Your task to perform on an android device: turn on the 24-hour format for clock Image 0: 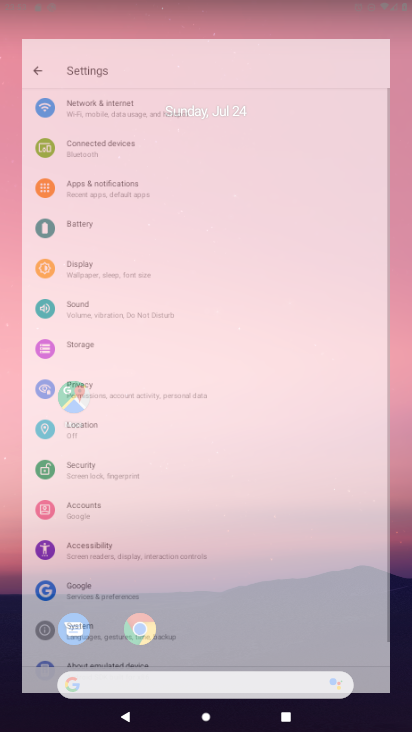
Step 0: drag from (200, 612) to (209, 165)
Your task to perform on an android device: turn on the 24-hour format for clock Image 1: 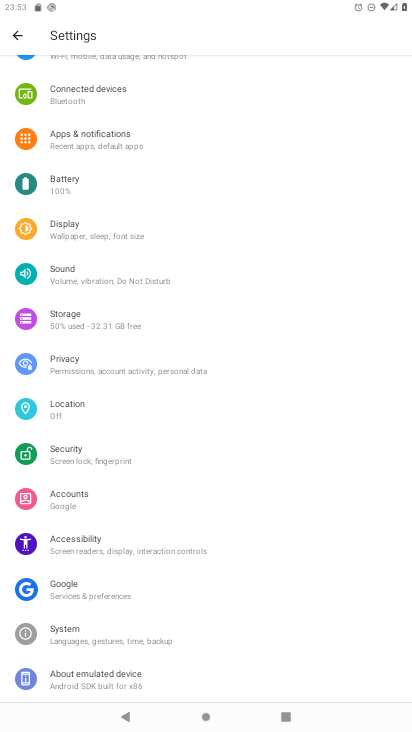
Step 1: press home button
Your task to perform on an android device: turn on the 24-hour format for clock Image 2: 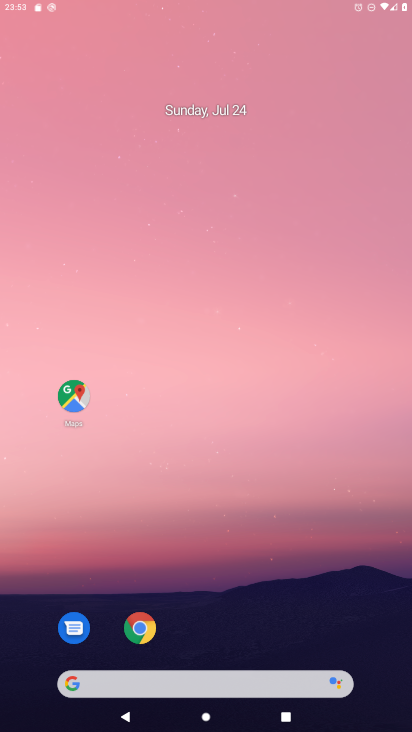
Step 2: drag from (222, 675) to (191, 99)
Your task to perform on an android device: turn on the 24-hour format for clock Image 3: 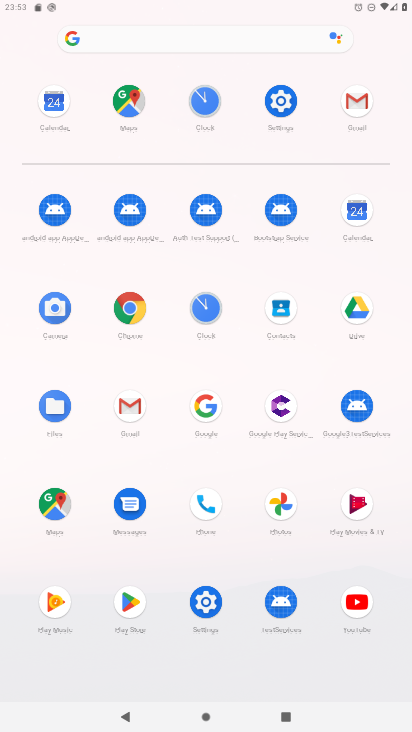
Step 3: drag from (236, 542) to (234, 172)
Your task to perform on an android device: turn on the 24-hour format for clock Image 4: 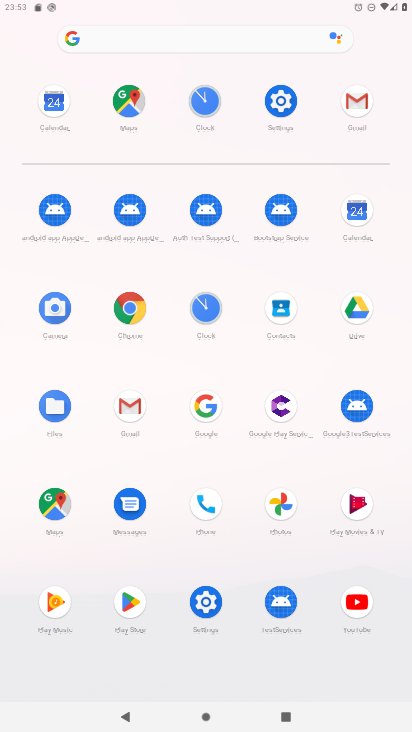
Step 4: drag from (234, 553) to (246, 231)
Your task to perform on an android device: turn on the 24-hour format for clock Image 5: 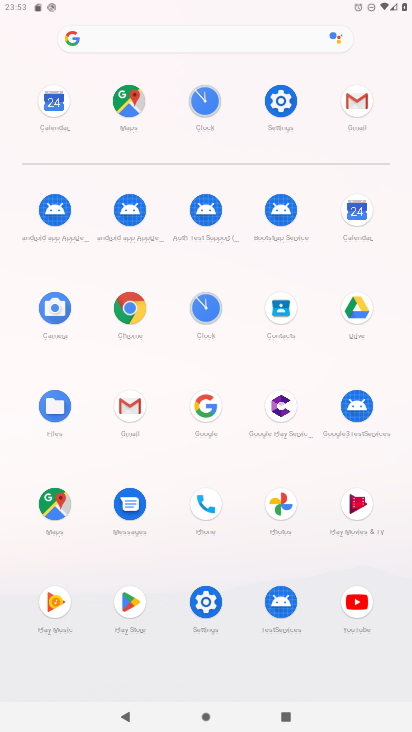
Step 5: click (201, 306)
Your task to perform on an android device: turn on the 24-hour format for clock Image 6: 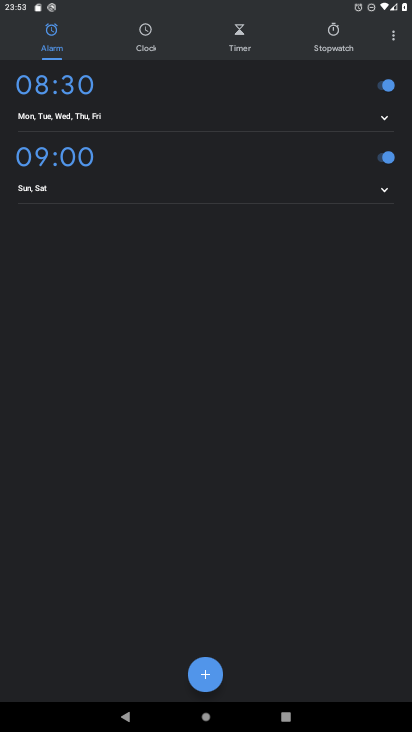
Step 6: drag from (395, 34) to (341, 69)
Your task to perform on an android device: turn on the 24-hour format for clock Image 7: 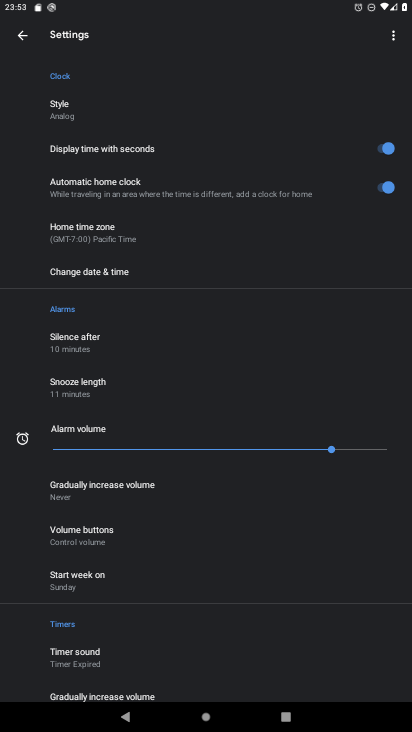
Step 7: drag from (177, 630) to (214, 336)
Your task to perform on an android device: turn on the 24-hour format for clock Image 8: 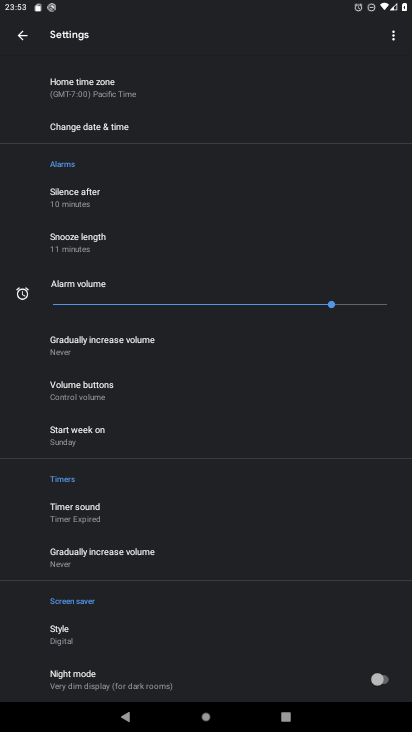
Step 8: drag from (208, 472) to (303, 686)
Your task to perform on an android device: turn on the 24-hour format for clock Image 9: 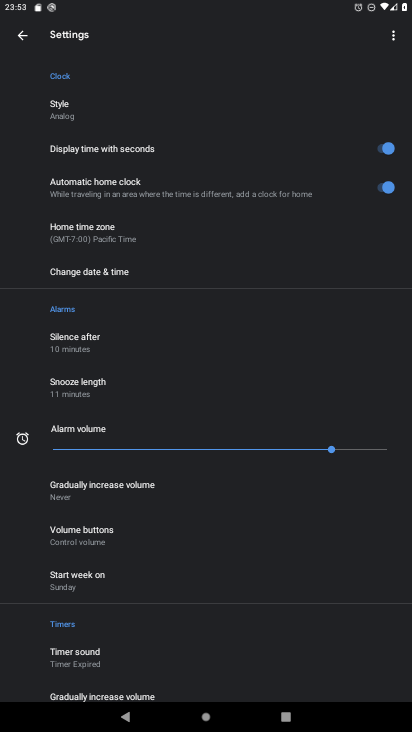
Step 9: click (146, 274)
Your task to perform on an android device: turn on the 24-hour format for clock Image 10: 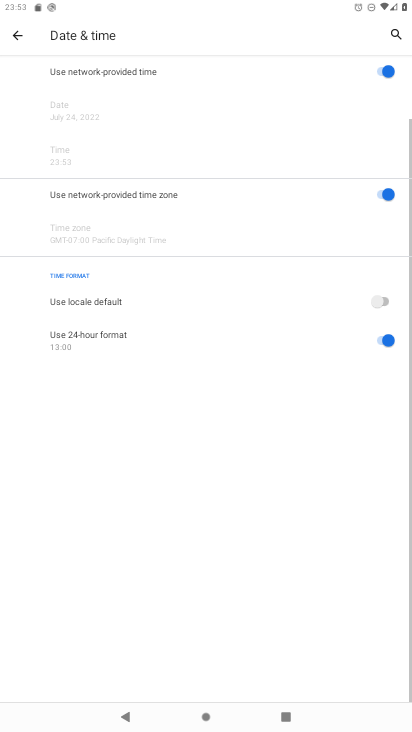
Step 10: task complete